Your task to perform on an android device: visit the assistant section in the google photos Image 0: 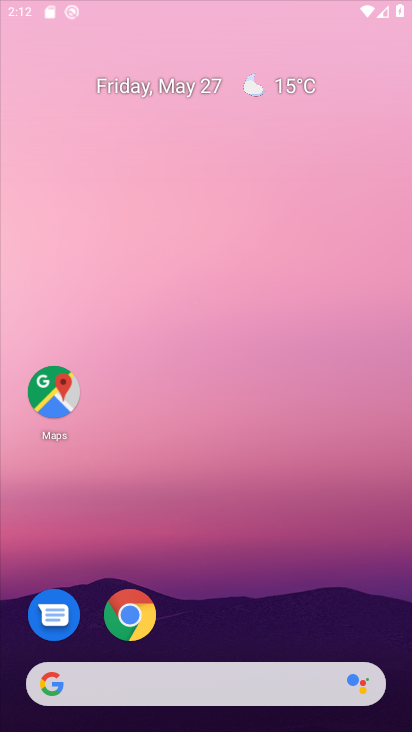
Step 0: drag from (298, 592) to (195, 24)
Your task to perform on an android device: visit the assistant section in the google photos Image 1: 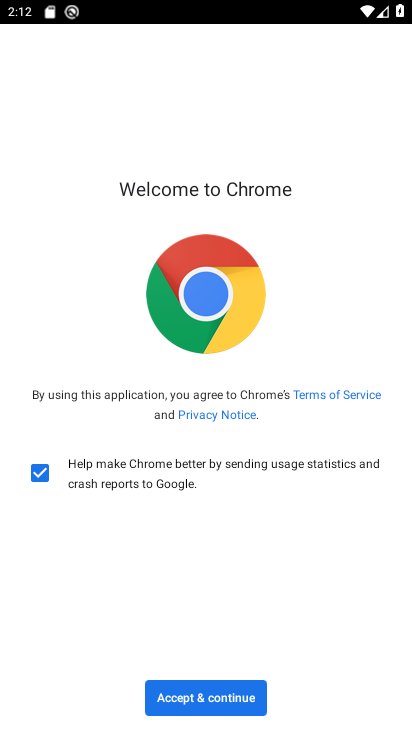
Step 1: press home button
Your task to perform on an android device: visit the assistant section in the google photos Image 2: 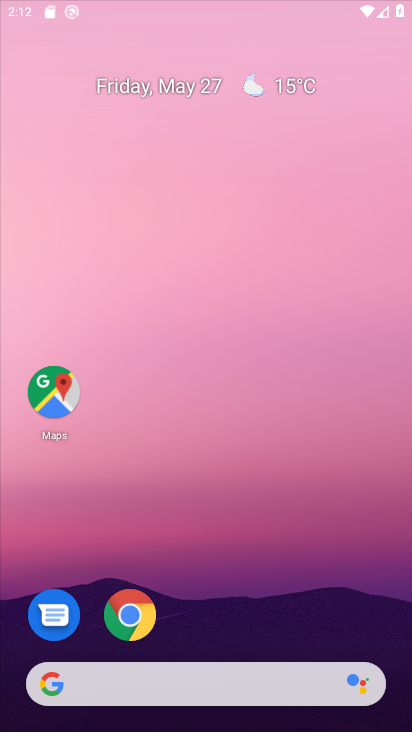
Step 2: drag from (226, 329) to (148, 22)
Your task to perform on an android device: visit the assistant section in the google photos Image 3: 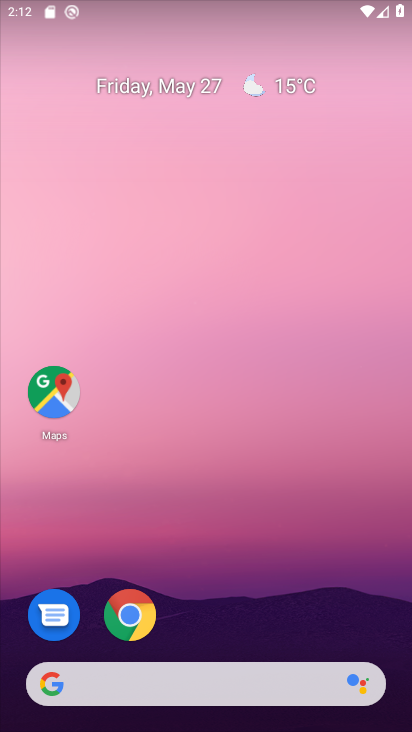
Step 3: drag from (283, 576) to (199, 6)
Your task to perform on an android device: visit the assistant section in the google photos Image 4: 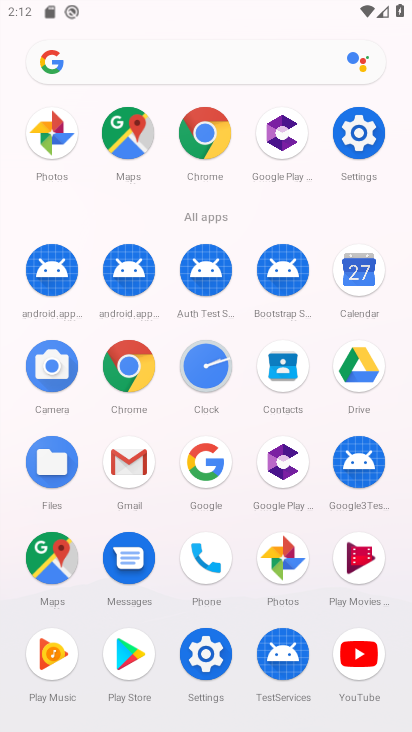
Step 4: click (287, 567)
Your task to perform on an android device: visit the assistant section in the google photos Image 5: 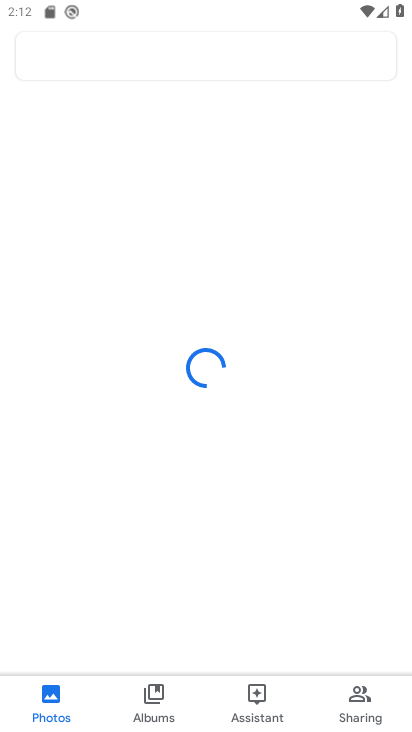
Step 5: click (255, 701)
Your task to perform on an android device: visit the assistant section in the google photos Image 6: 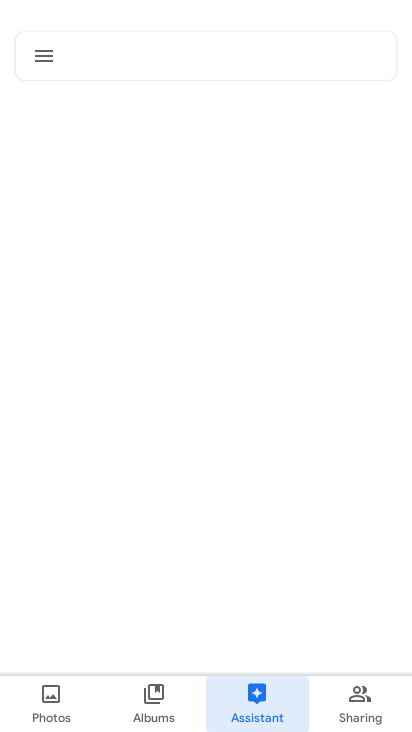
Step 6: task complete